Your task to perform on an android device: create a new album in the google photos Image 0: 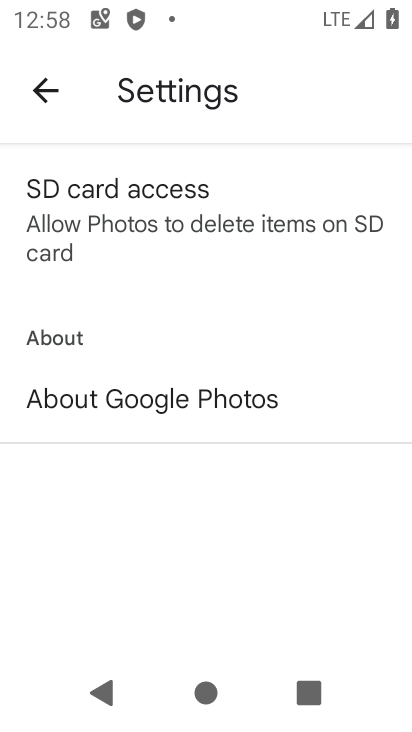
Step 0: press home button
Your task to perform on an android device: create a new album in the google photos Image 1: 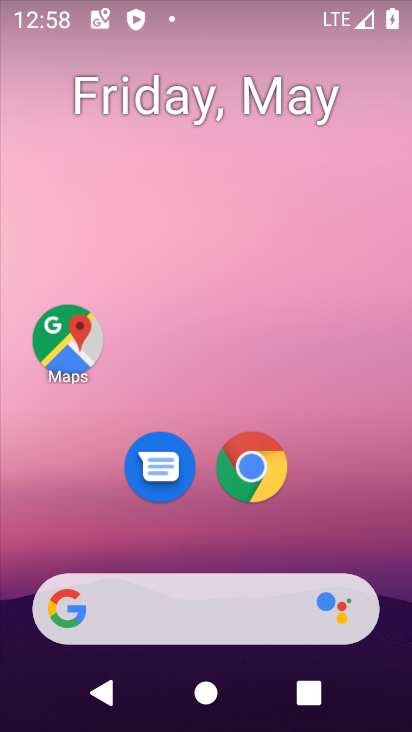
Step 1: drag from (320, 525) to (320, 118)
Your task to perform on an android device: create a new album in the google photos Image 2: 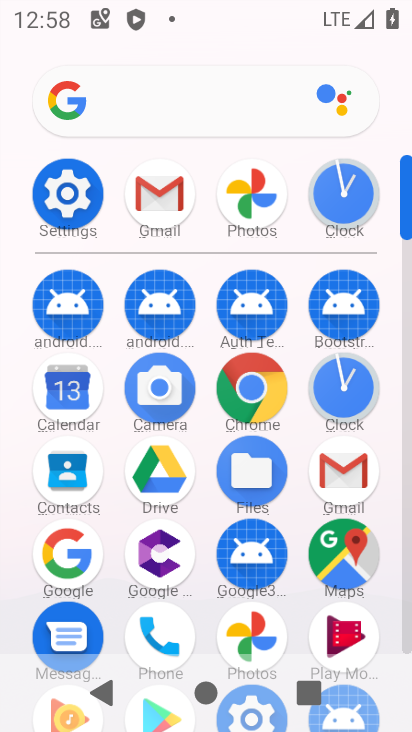
Step 2: click (255, 194)
Your task to perform on an android device: create a new album in the google photos Image 3: 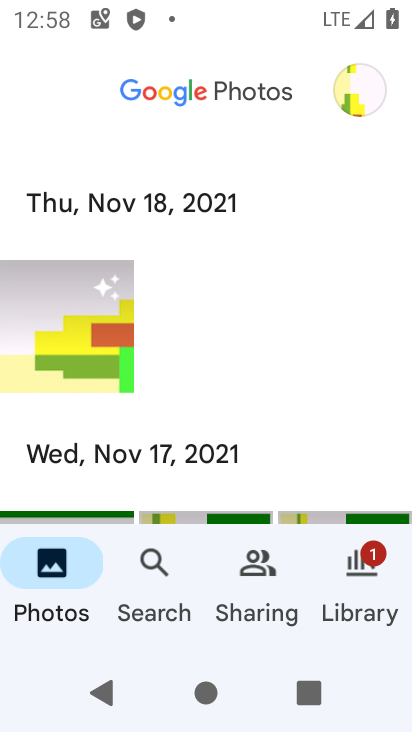
Step 3: click (370, 564)
Your task to perform on an android device: create a new album in the google photos Image 4: 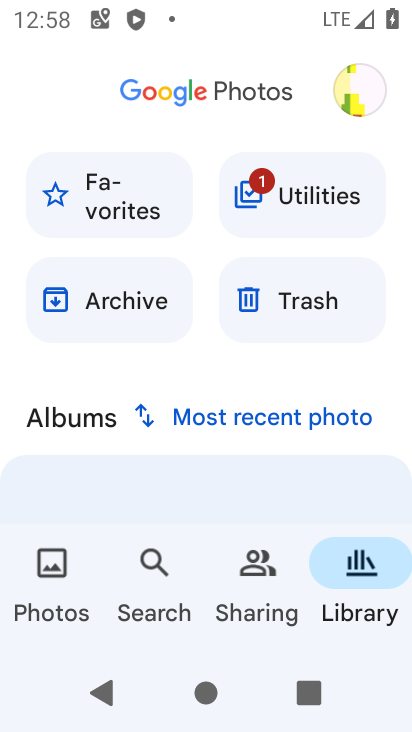
Step 4: drag from (167, 496) to (257, 286)
Your task to perform on an android device: create a new album in the google photos Image 5: 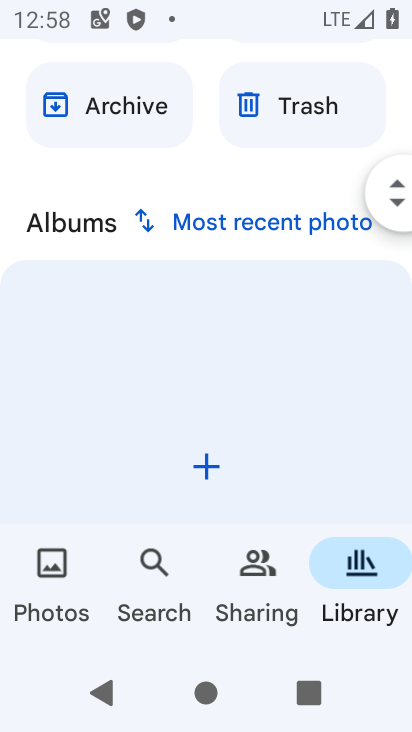
Step 5: click (209, 466)
Your task to perform on an android device: create a new album in the google photos Image 6: 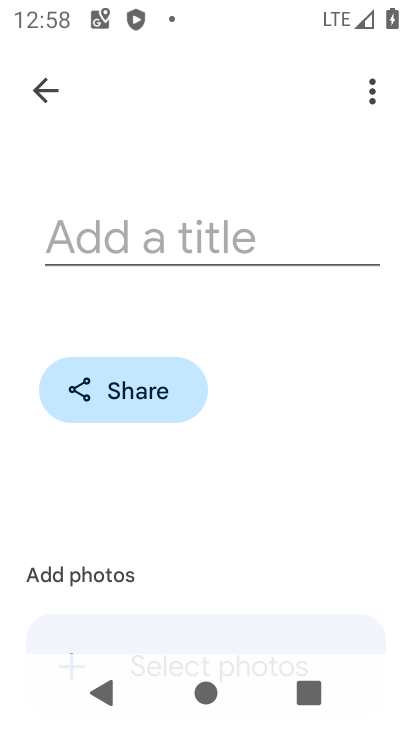
Step 6: click (175, 254)
Your task to perform on an android device: create a new album in the google photos Image 7: 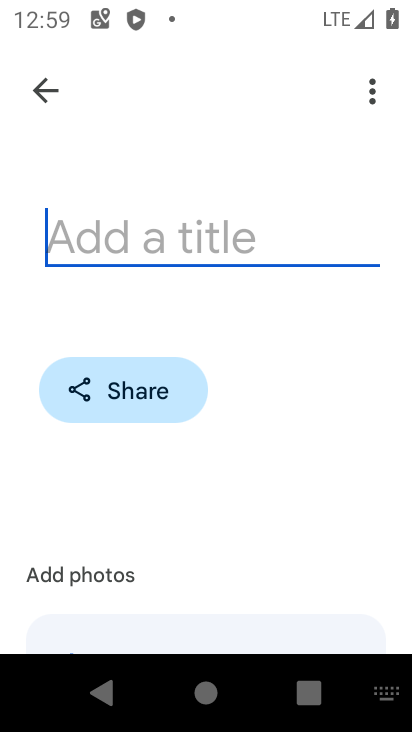
Step 7: type "Lilly"
Your task to perform on an android device: create a new album in the google photos Image 8: 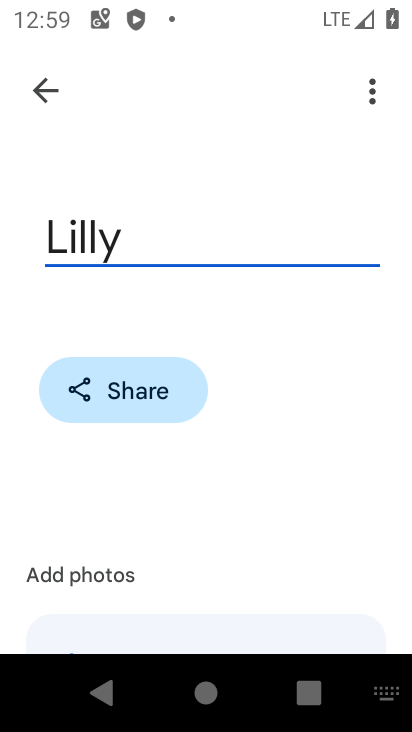
Step 8: drag from (207, 495) to (317, 265)
Your task to perform on an android device: create a new album in the google photos Image 9: 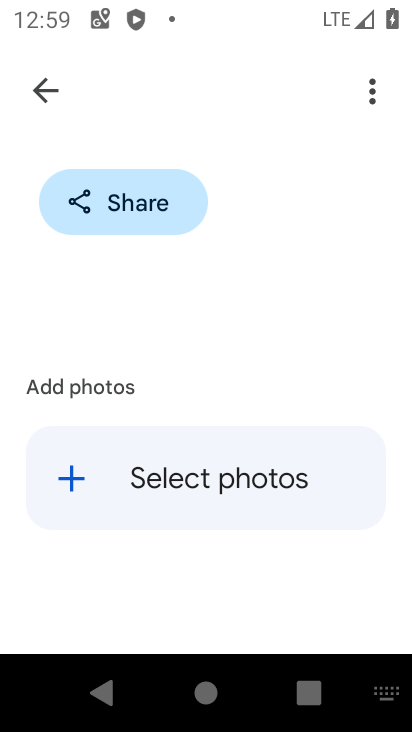
Step 9: click (178, 471)
Your task to perform on an android device: create a new album in the google photos Image 10: 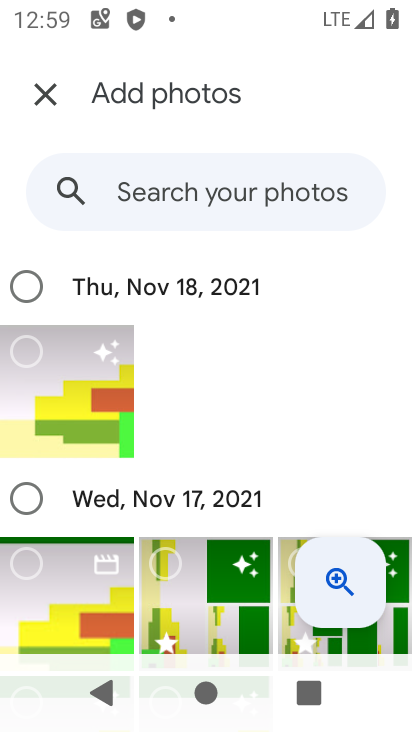
Step 10: click (35, 288)
Your task to perform on an android device: create a new album in the google photos Image 11: 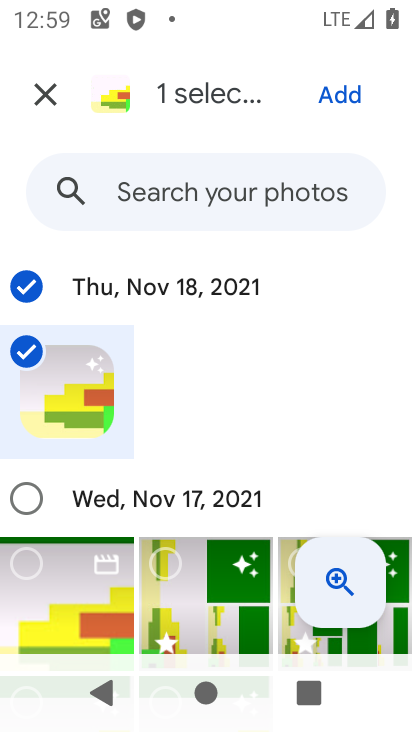
Step 11: click (361, 88)
Your task to perform on an android device: create a new album in the google photos Image 12: 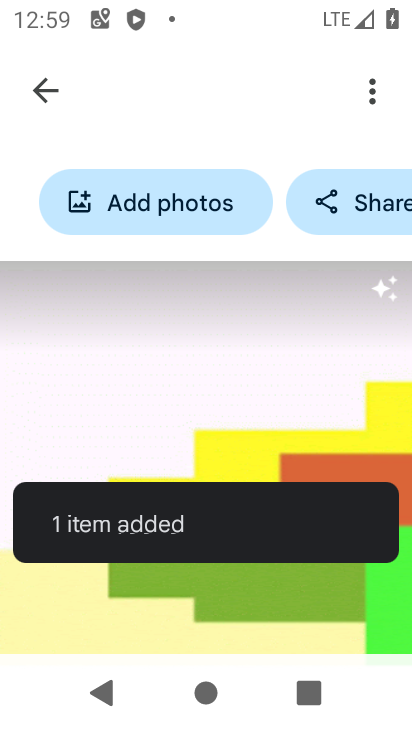
Step 12: task complete